Your task to perform on an android device: Find coffee shops on Maps Image 0: 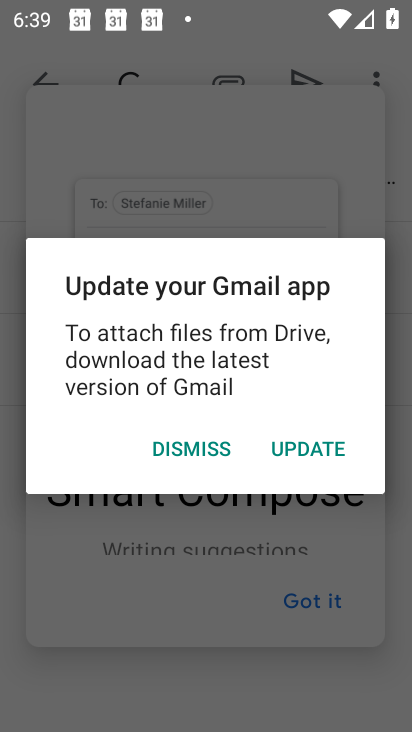
Step 0: press home button
Your task to perform on an android device: Find coffee shops on Maps Image 1: 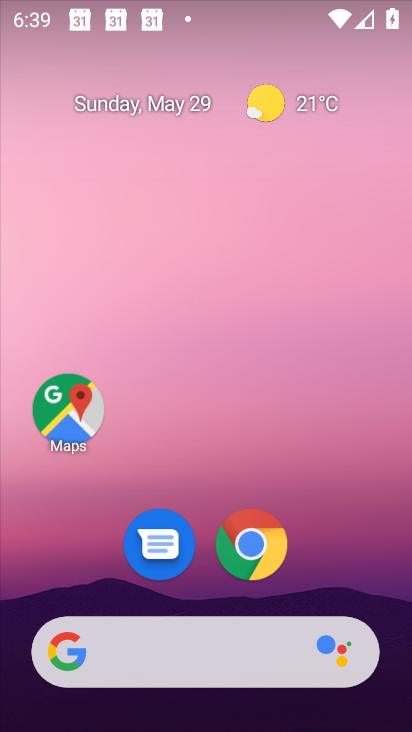
Step 1: click (323, 567)
Your task to perform on an android device: Find coffee shops on Maps Image 2: 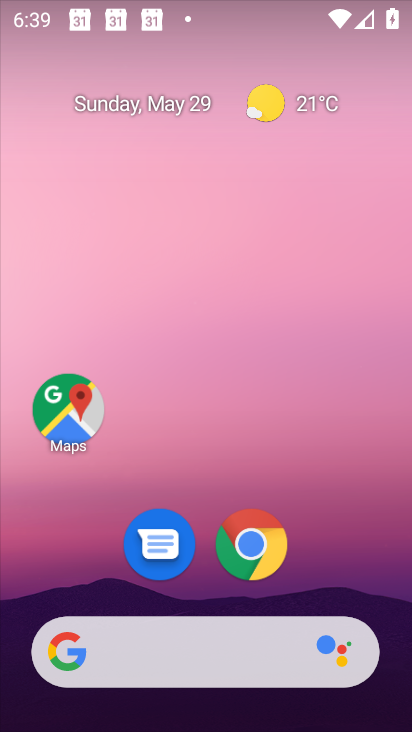
Step 2: click (67, 396)
Your task to perform on an android device: Find coffee shops on Maps Image 3: 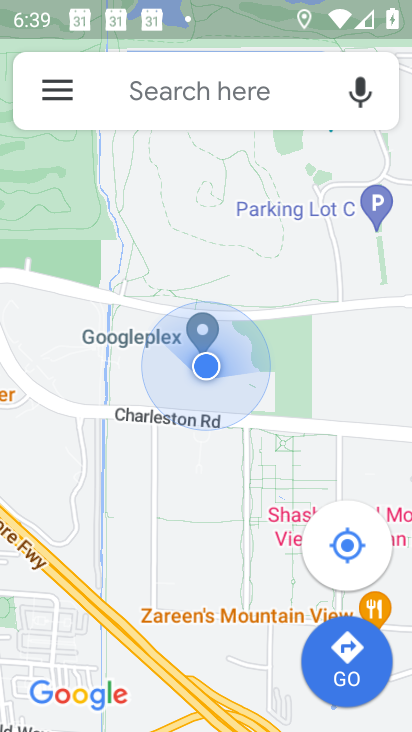
Step 3: click (183, 108)
Your task to perform on an android device: Find coffee shops on Maps Image 4: 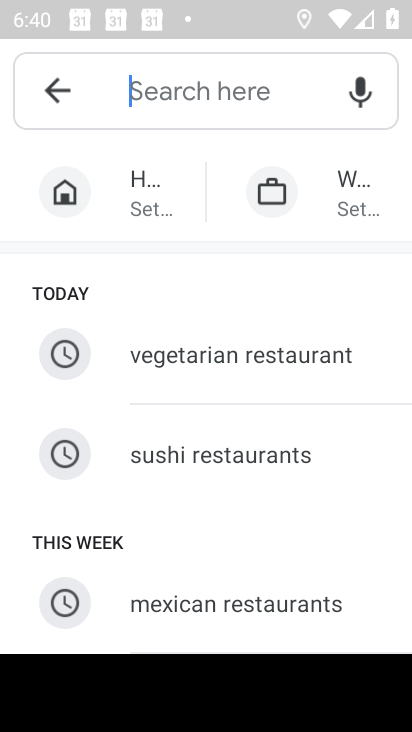
Step 4: type "coffee"
Your task to perform on an android device: Find coffee shops on Maps Image 5: 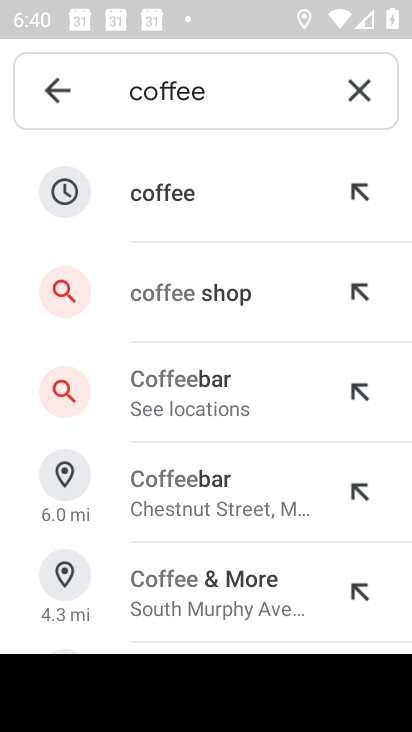
Step 5: click (231, 285)
Your task to perform on an android device: Find coffee shops on Maps Image 6: 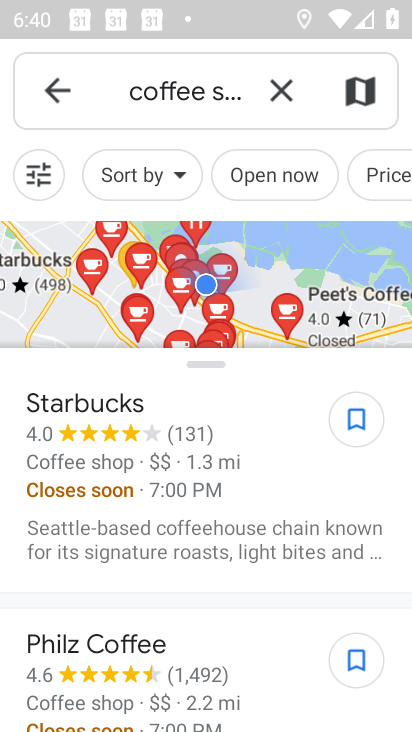
Step 6: task complete